Your task to perform on an android device: Go to Yahoo.com Image 0: 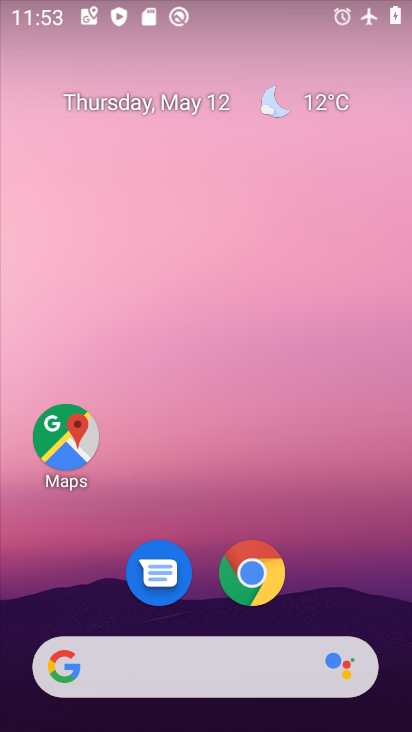
Step 0: click (210, 659)
Your task to perform on an android device: Go to Yahoo.com Image 1: 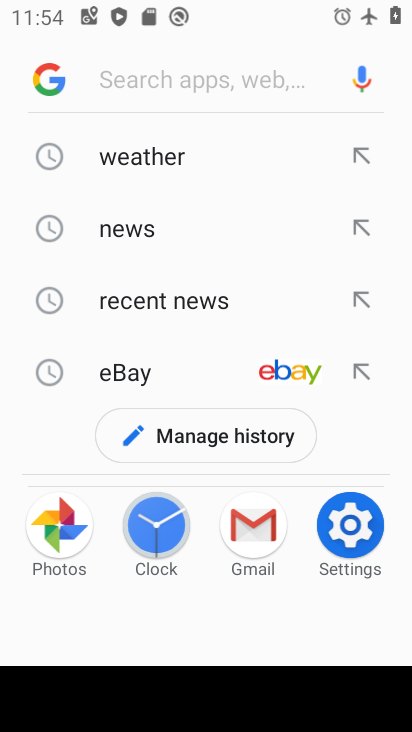
Step 1: type "yahoo.com"
Your task to perform on an android device: Go to Yahoo.com Image 2: 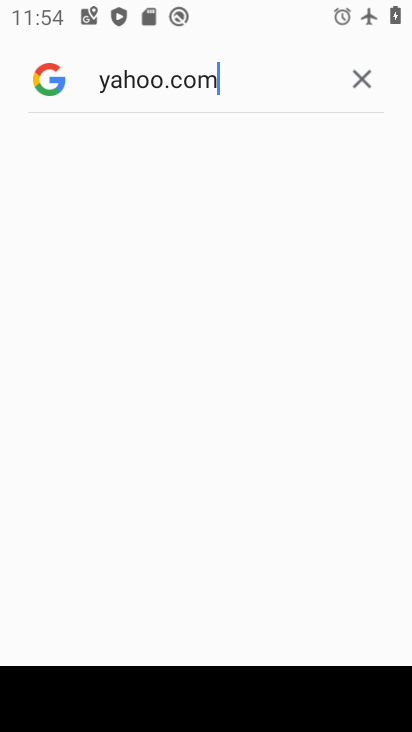
Step 2: task complete